Your task to perform on an android device: What is the news today? Image 0: 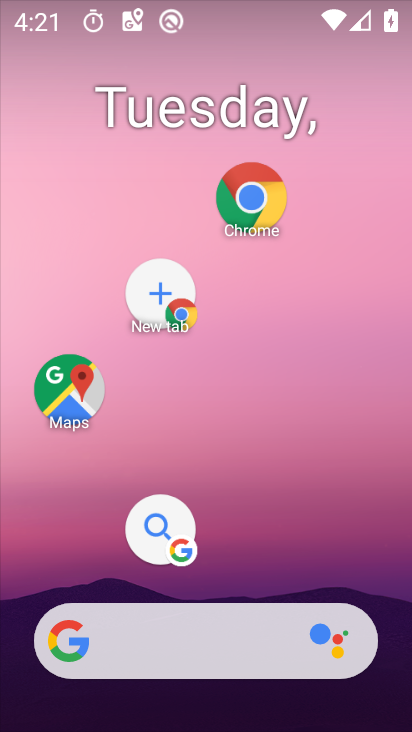
Step 0: drag from (230, 598) to (212, 133)
Your task to perform on an android device: What is the news today? Image 1: 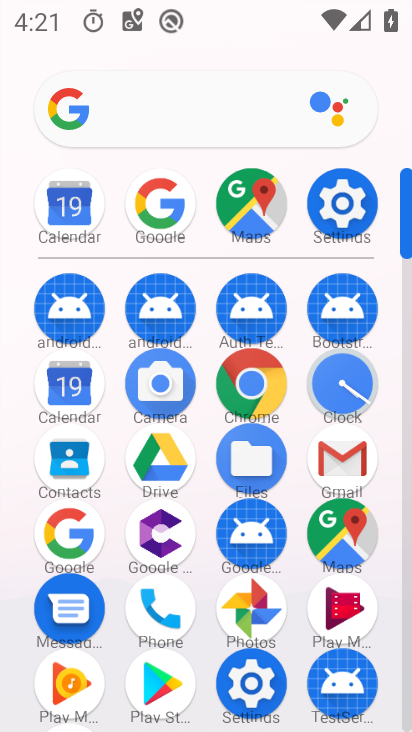
Step 1: click (74, 522)
Your task to perform on an android device: What is the news today? Image 2: 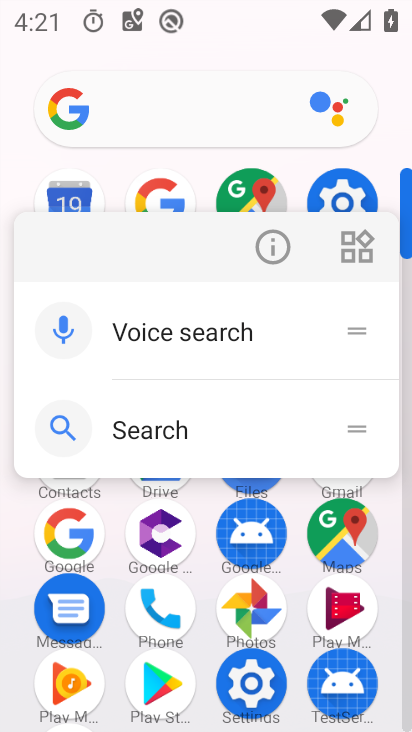
Step 2: click (73, 529)
Your task to perform on an android device: What is the news today? Image 3: 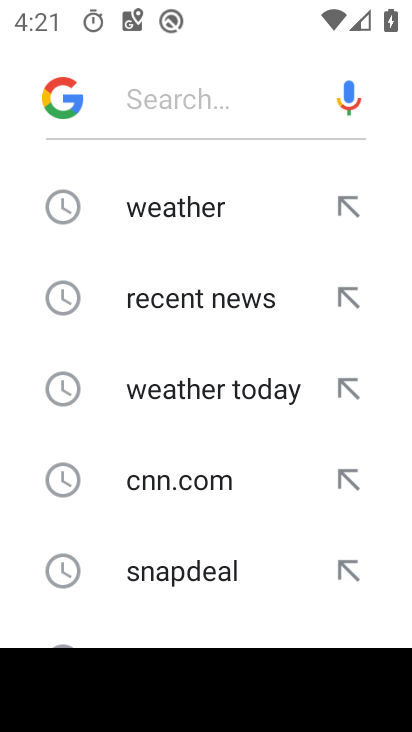
Step 3: click (199, 308)
Your task to perform on an android device: What is the news today? Image 4: 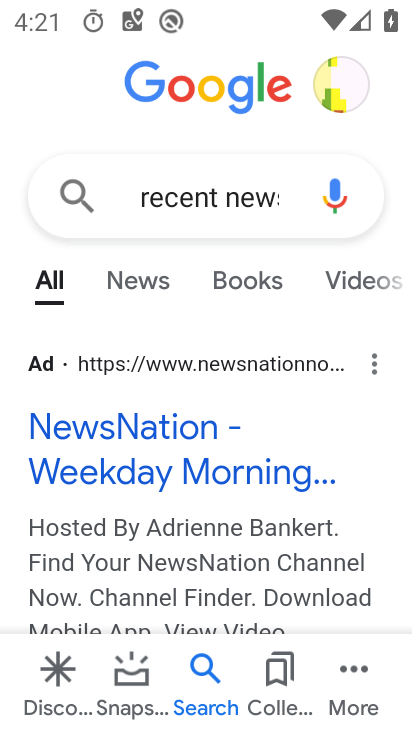
Step 4: click (129, 458)
Your task to perform on an android device: What is the news today? Image 5: 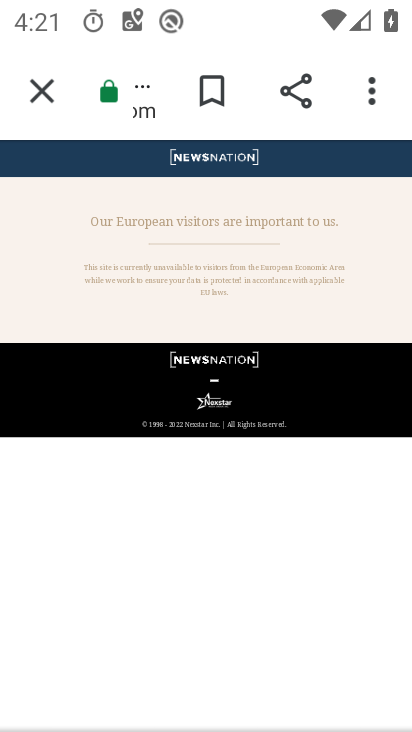
Step 5: click (47, 95)
Your task to perform on an android device: What is the news today? Image 6: 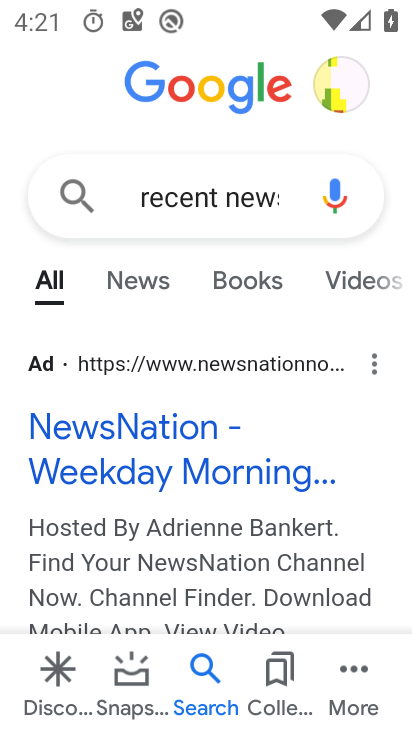
Step 6: drag from (173, 597) to (176, 204)
Your task to perform on an android device: What is the news today? Image 7: 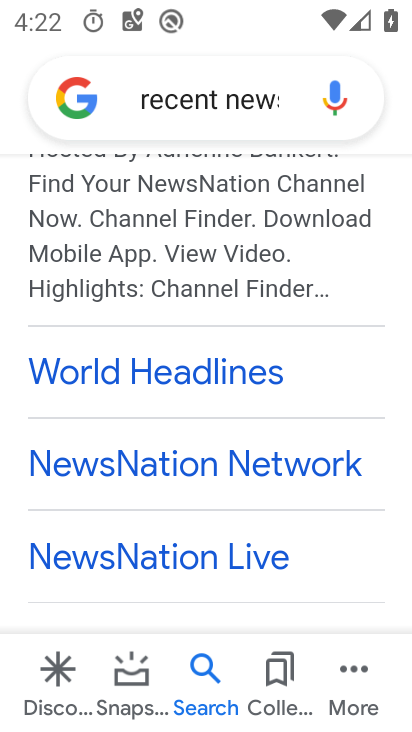
Step 7: click (124, 370)
Your task to perform on an android device: What is the news today? Image 8: 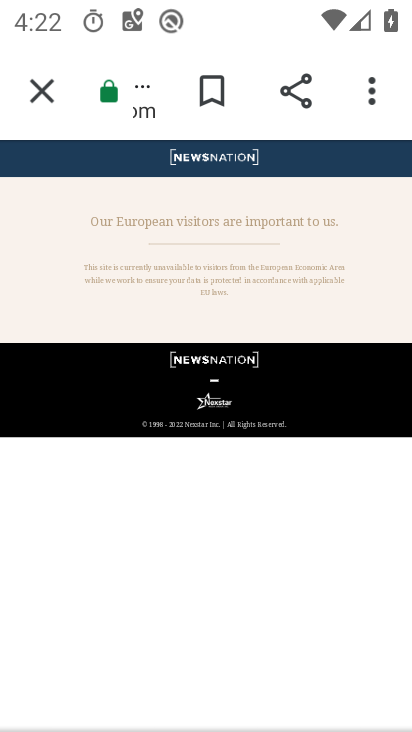
Step 8: task complete